Your task to perform on an android device: turn smart compose on in the gmail app Image 0: 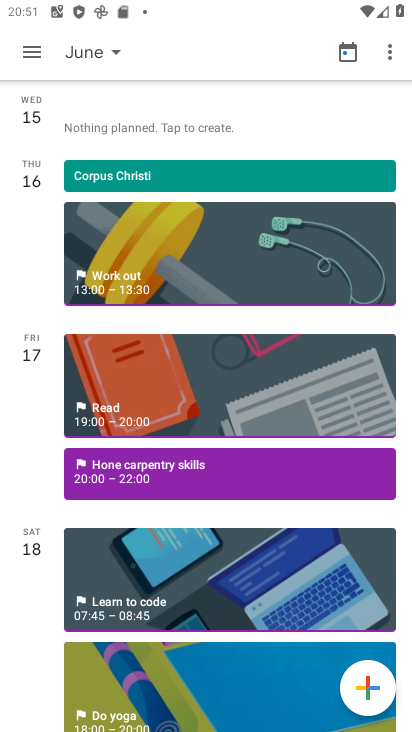
Step 0: press home button
Your task to perform on an android device: turn smart compose on in the gmail app Image 1: 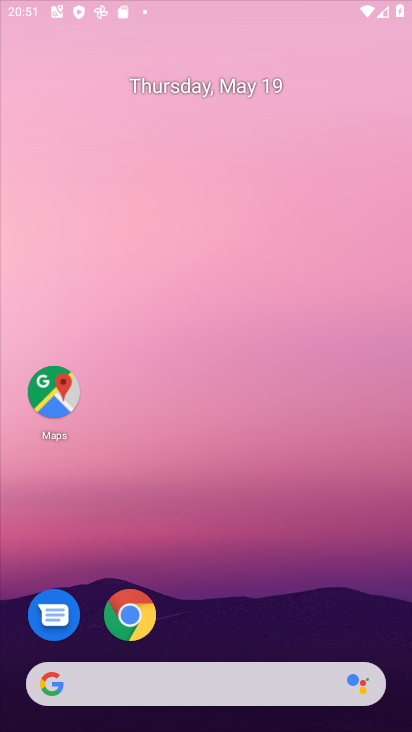
Step 1: drag from (274, 560) to (261, 69)
Your task to perform on an android device: turn smart compose on in the gmail app Image 2: 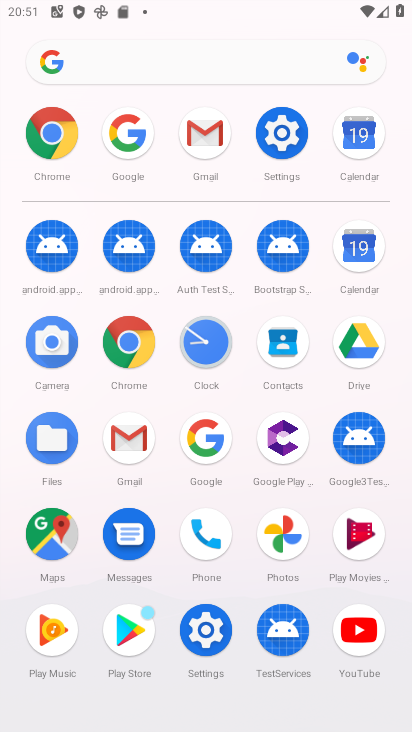
Step 2: click (207, 139)
Your task to perform on an android device: turn smart compose on in the gmail app Image 3: 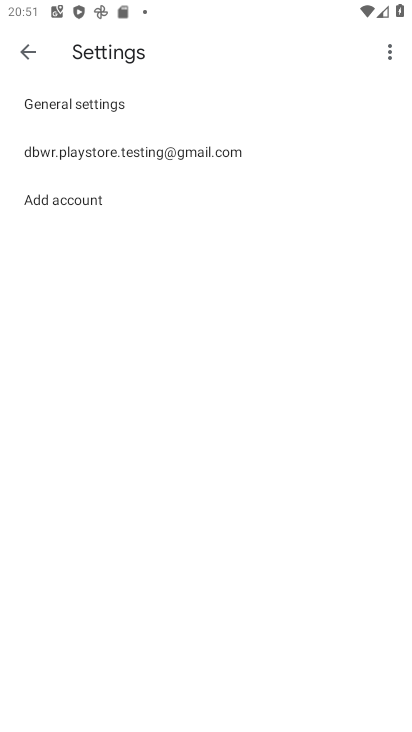
Step 3: click (136, 151)
Your task to perform on an android device: turn smart compose on in the gmail app Image 4: 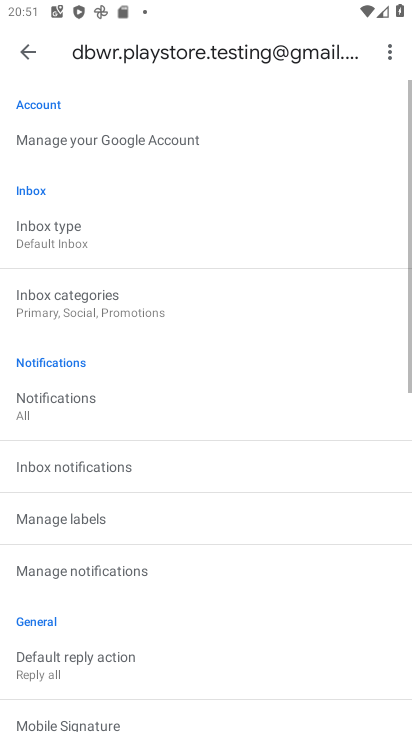
Step 4: task complete